Your task to perform on an android device: make emails show in primary in the gmail app Image 0: 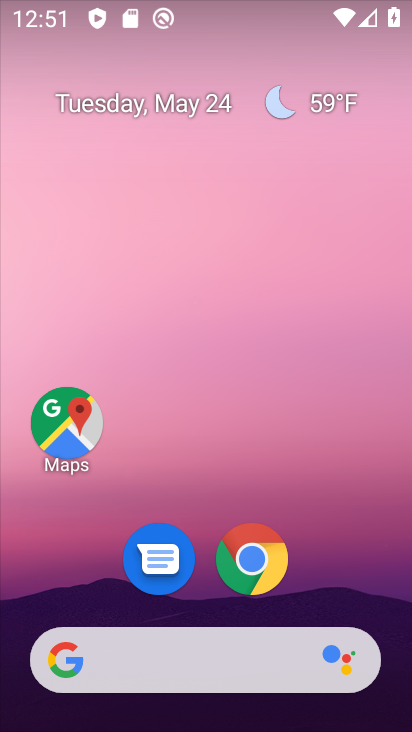
Step 0: drag from (385, 656) to (314, 84)
Your task to perform on an android device: make emails show in primary in the gmail app Image 1: 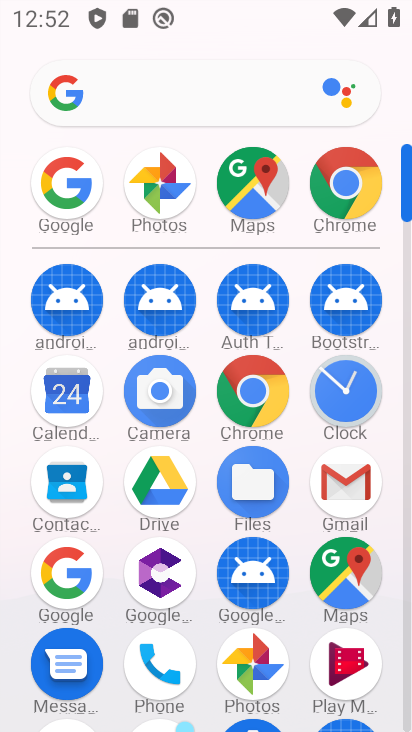
Step 1: click (344, 481)
Your task to perform on an android device: make emails show in primary in the gmail app Image 2: 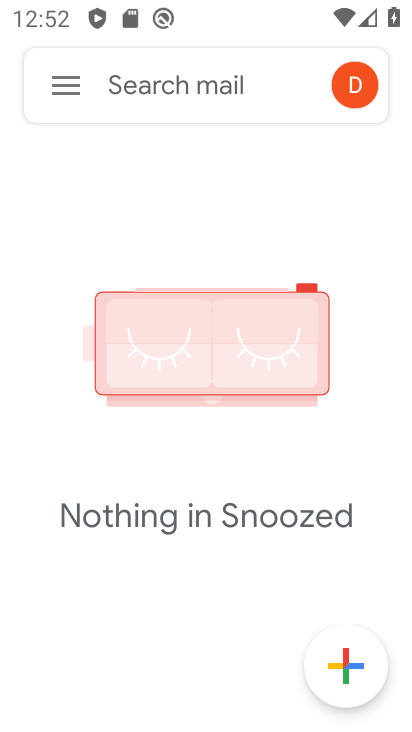
Step 2: task complete